Your task to perform on an android device: turn off wifi Image 0: 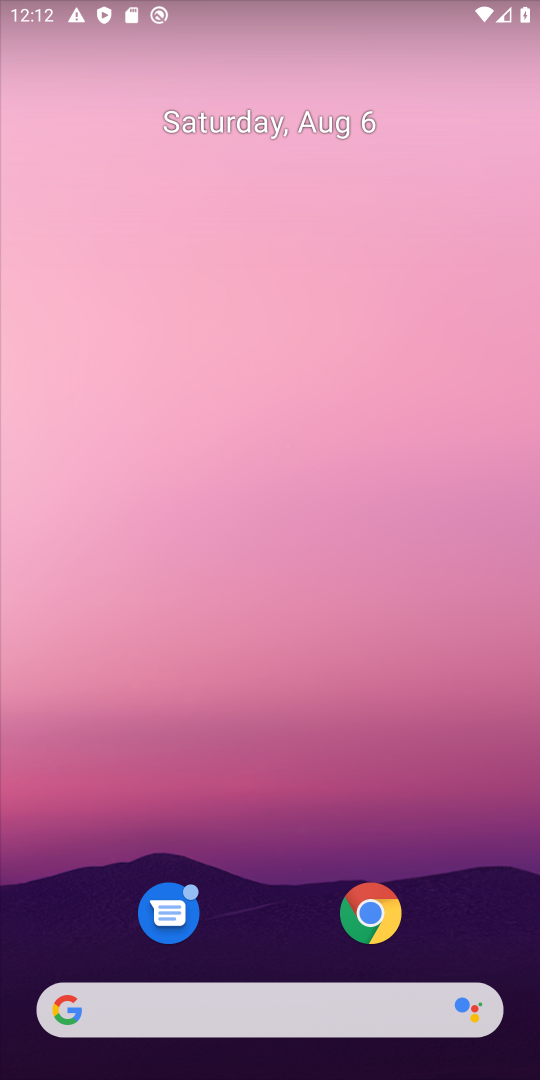
Step 0: press home button
Your task to perform on an android device: turn off wifi Image 1: 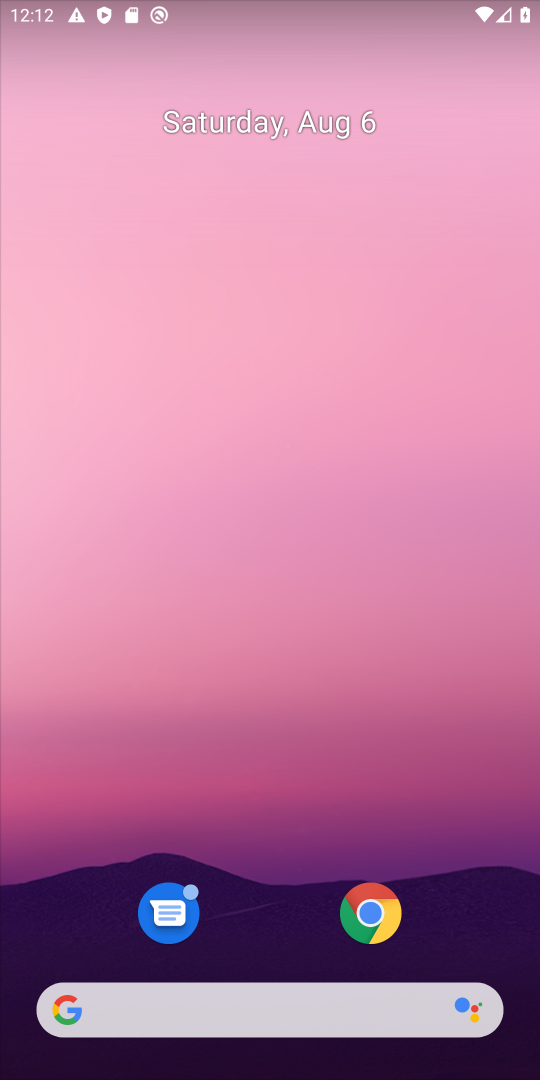
Step 1: drag from (445, 907) to (509, 557)
Your task to perform on an android device: turn off wifi Image 2: 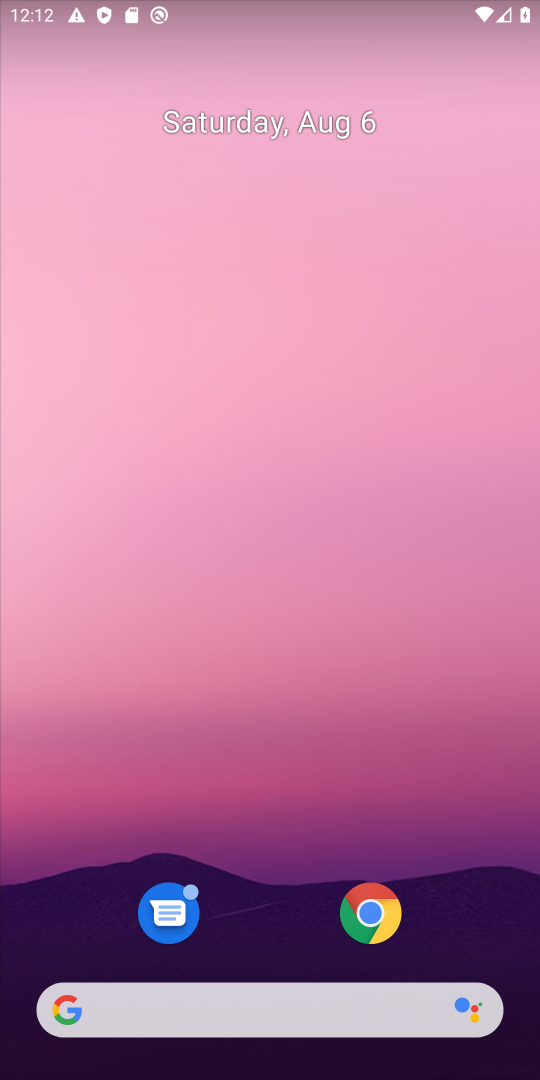
Step 2: drag from (479, 821) to (496, 354)
Your task to perform on an android device: turn off wifi Image 3: 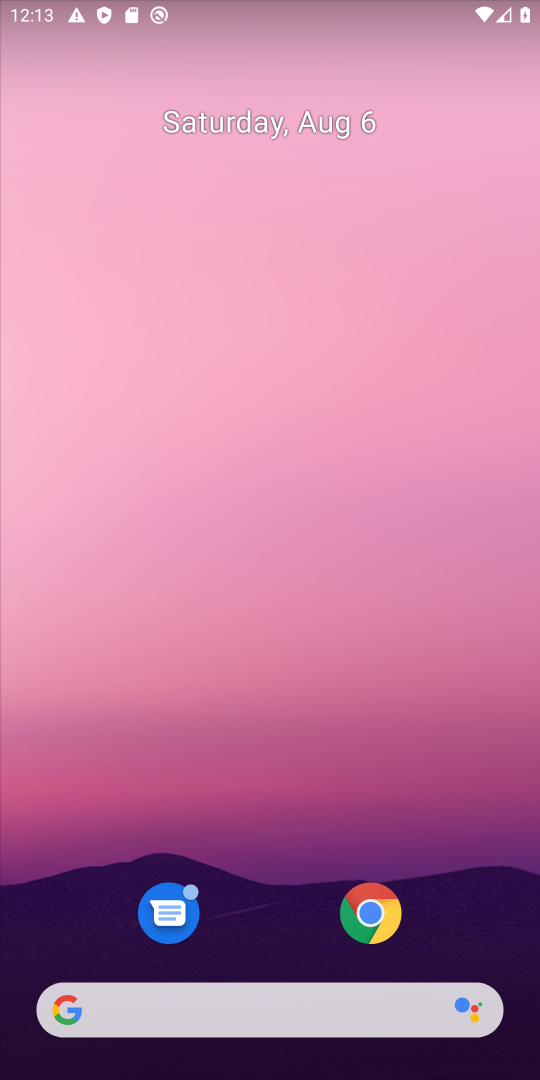
Step 3: drag from (449, 684) to (472, 102)
Your task to perform on an android device: turn off wifi Image 4: 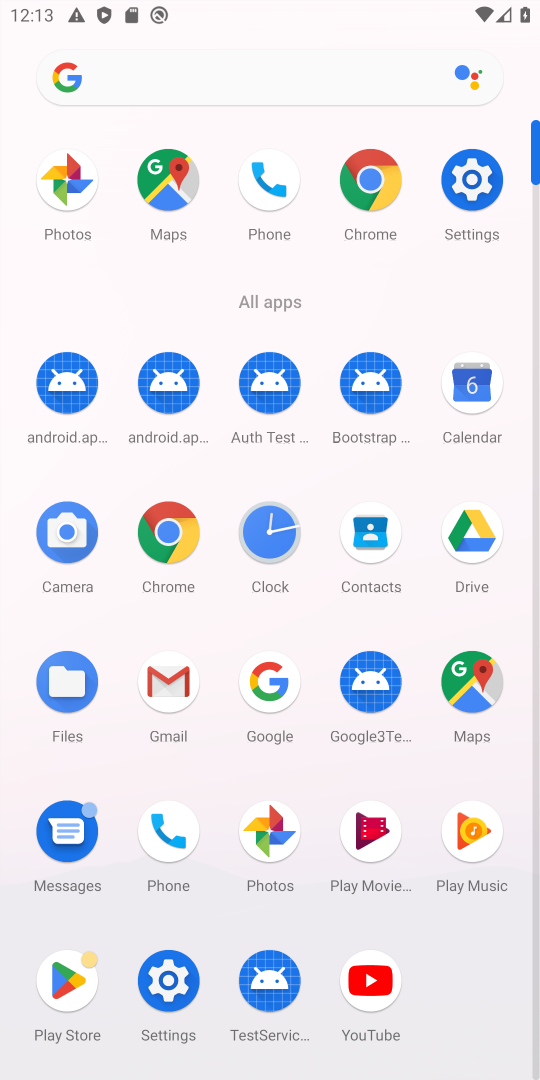
Step 4: click (467, 179)
Your task to perform on an android device: turn off wifi Image 5: 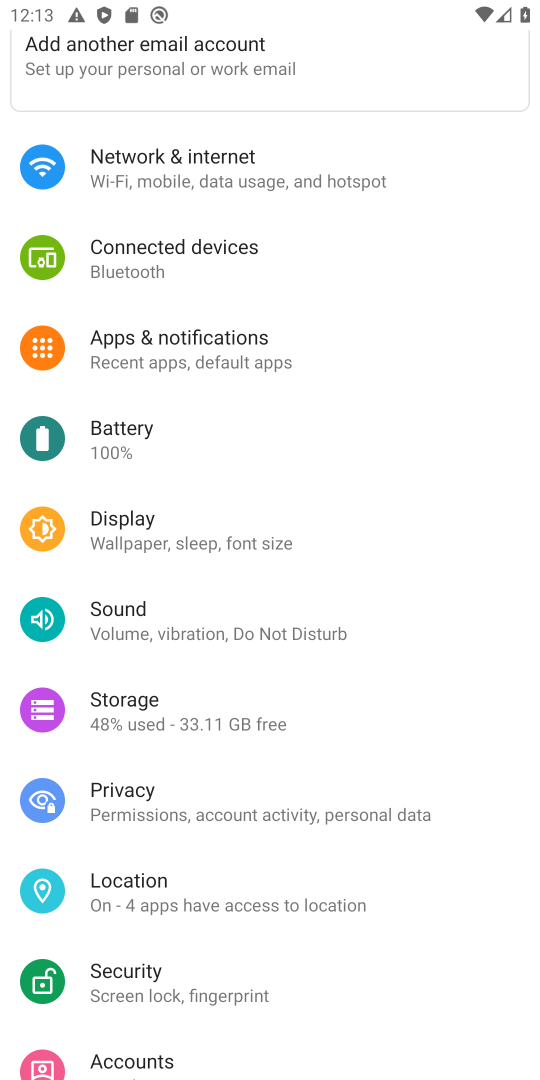
Step 5: drag from (447, 617) to (440, 369)
Your task to perform on an android device: turn off wifi Image 6: 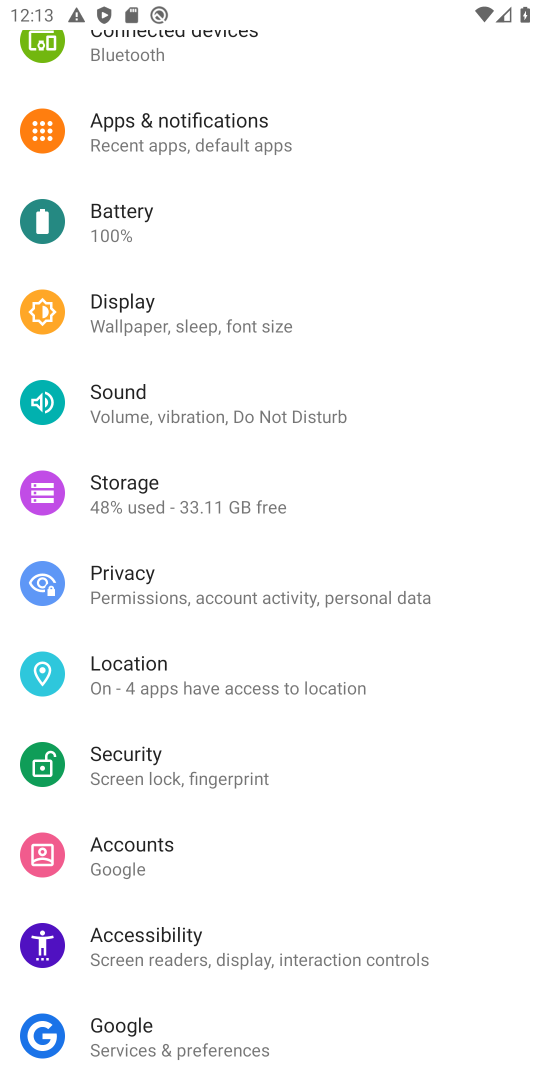
Step 6: drag from (438, 751) to (448, 488)
Your task to perform on an android device: turn off wifi Image 7: 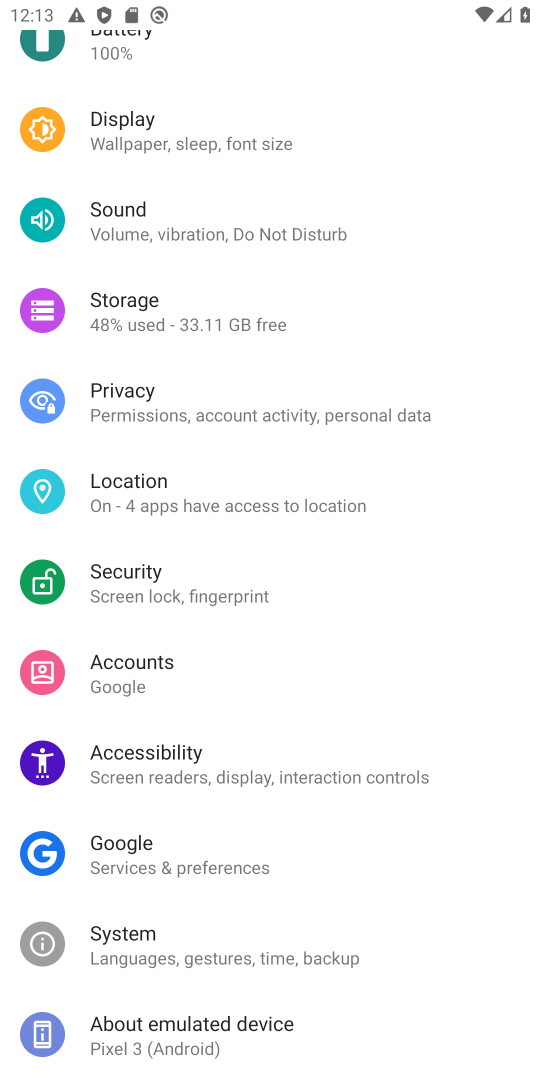
Step 7: drag from (453, 833) to (445, 568)
Your task to perform on an android device: turn off wifi Image 8: 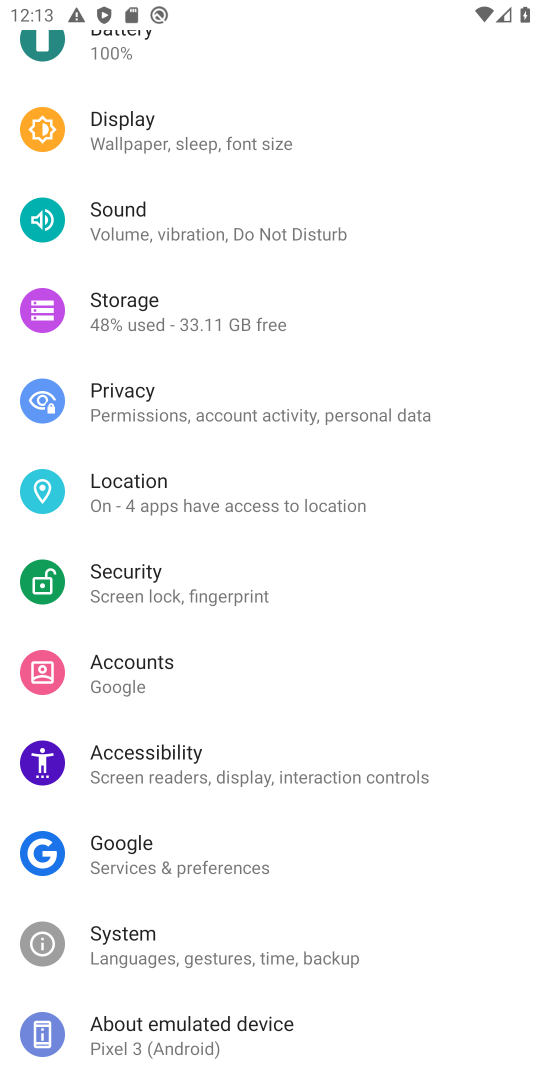
Step 8: drag from (469, 359) to (461, 601)
Your task to perform on an android device: turn off wifi Image 9: 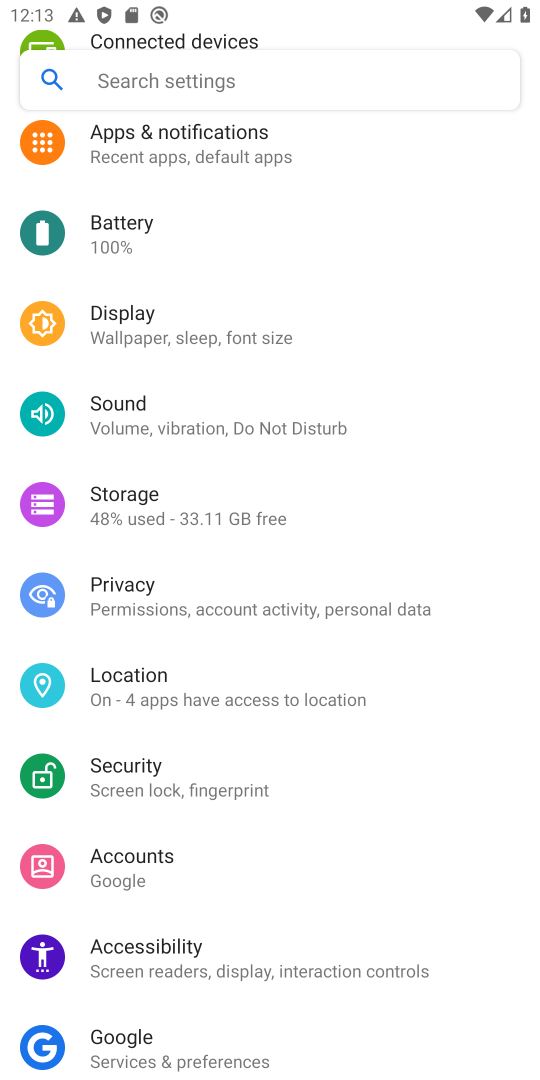
Step 9: drag from (482, 328) to (462, 634)
Your task to perform on an android device: turn off wifi Image 10: 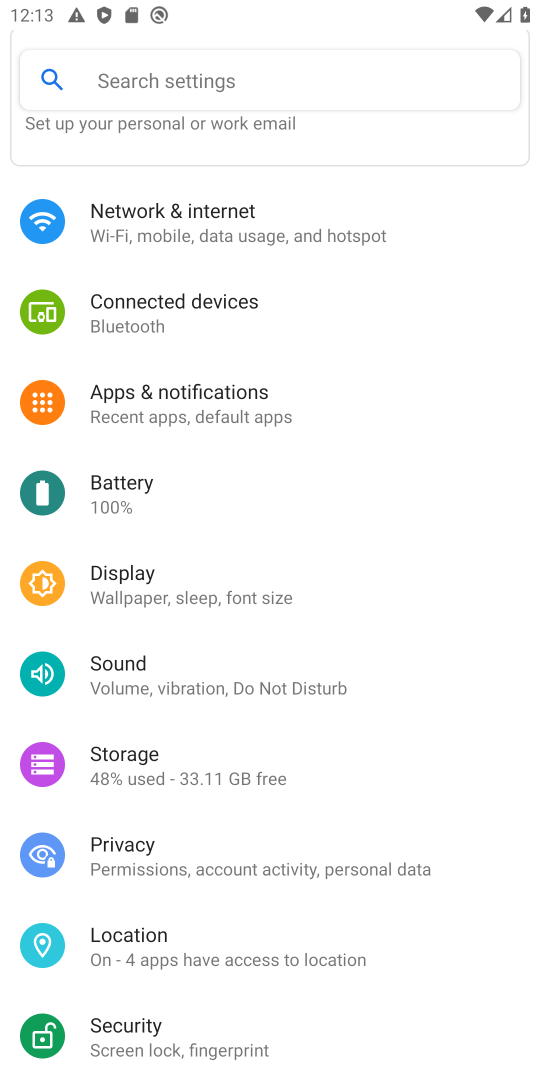
Step 10: drag from (445, 665) to (438, 534)
Your task to perform on an android device: turn off wifi Image 11: 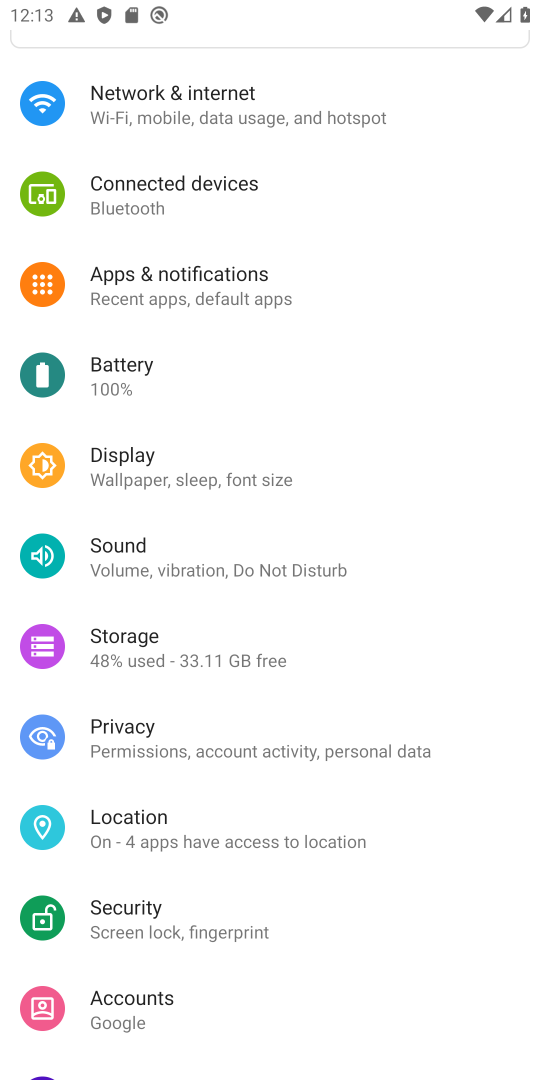
Step 11: click (332, 110)
Your task to perform on an android device: turn off wifi Image 12: 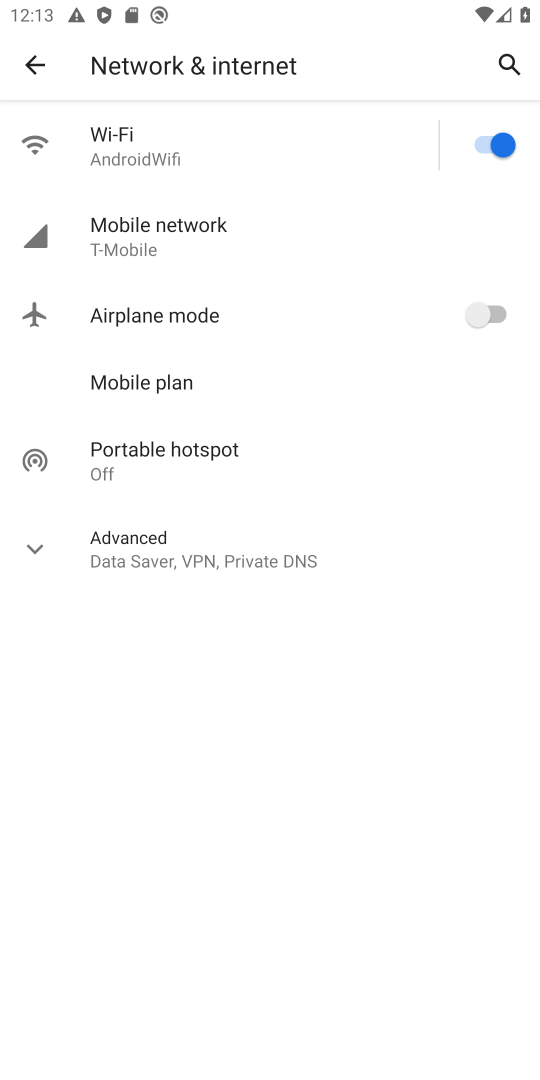
Step 12: click (500, 149)
Your task to perform on an android device: turn off wifi Image 13: 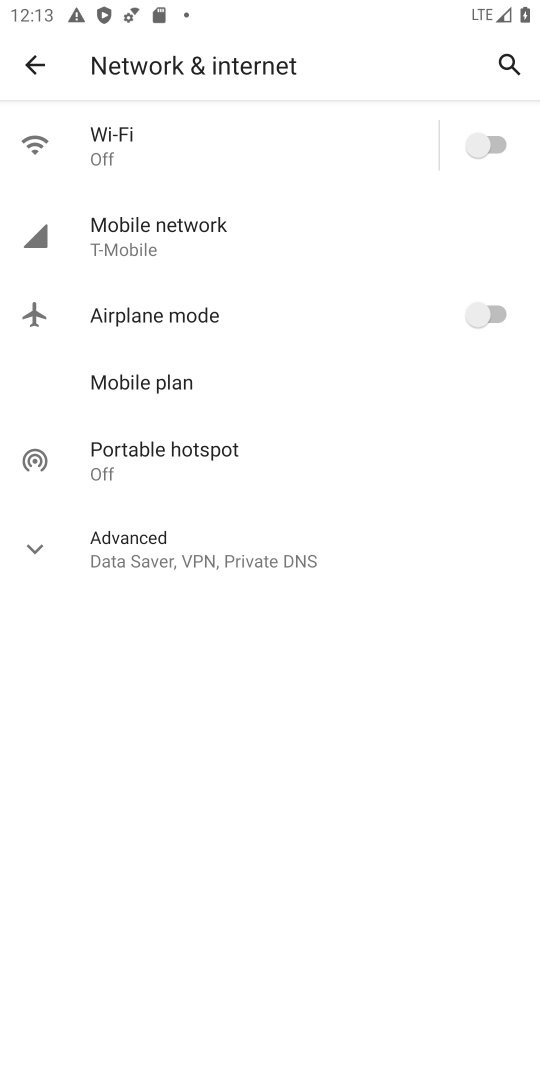
Step 13: task complete